Your task to perform on an android device: Open Android settings Image 0: 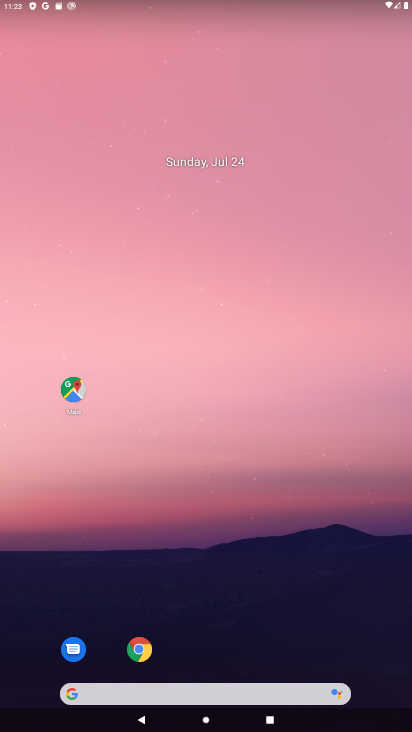
Step 0: drag from (206, 662) to (252, 6)
Your task to perform on an android device: Open Android settings Image 1: 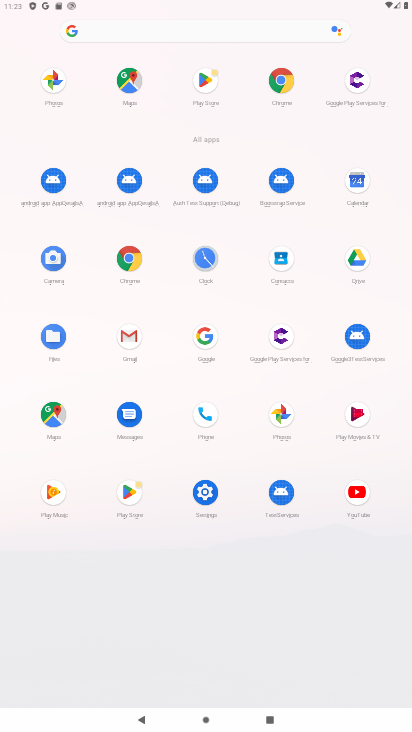
Step 1: click (203, 483)
Your task to perform on an android device: Open Android settings Image 2: 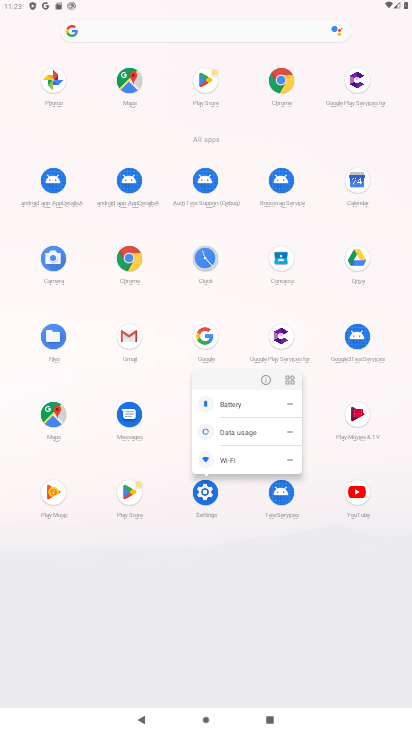
Step 2: click (202, 488)
Your task to perform on an android device: Open Android settings Image 3: 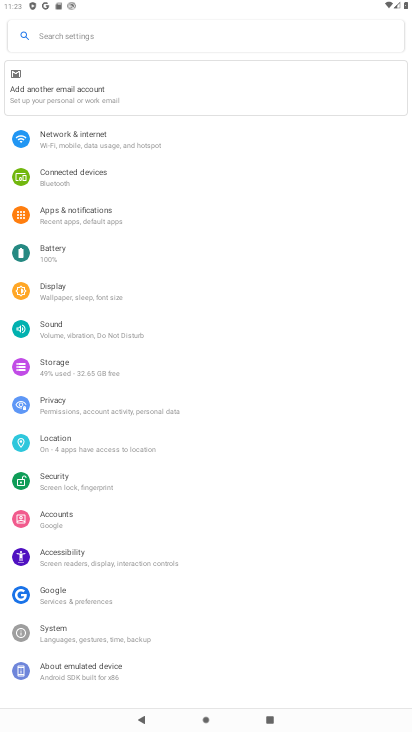
Step 3: click (127, 668)
Your task to perform on an android device: Open Android settings Image 4: 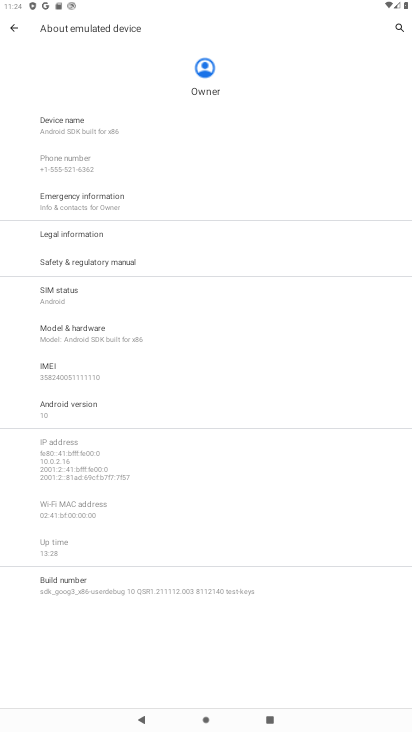
Step 4: click (84, 407)
Your task to perform on an android device: Open Android settings Image 5: 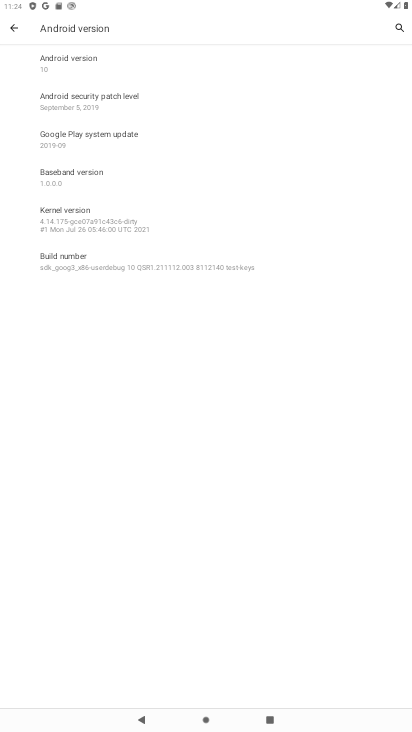
Step 5: task complete